Your task to perform on an android device: open a bookmark in the chrome app Image 0: 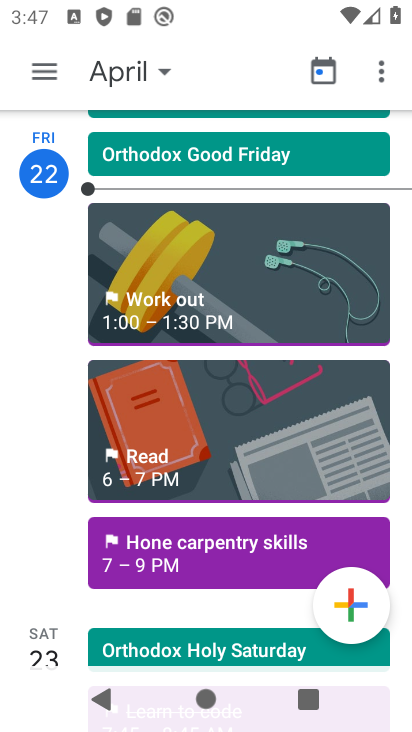
Step 0: press home button
Your task to perform on an android device: open a bookmark in the chrome app Image 1: 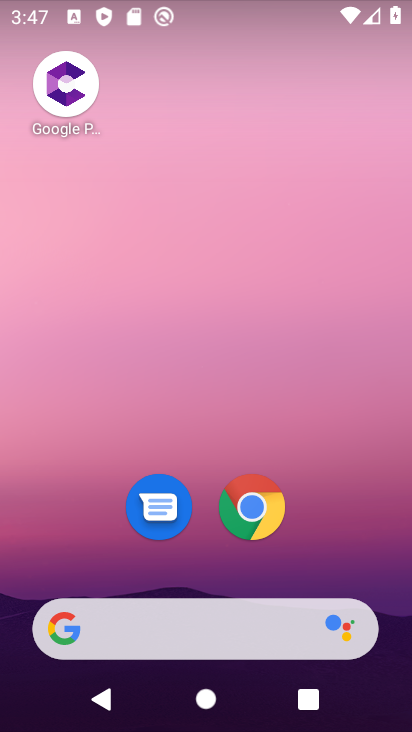
Step 1: drag from (339, 558) to (386, 29)
Your task to perform on an android device: open a bookmark in the chrome app Image 2: 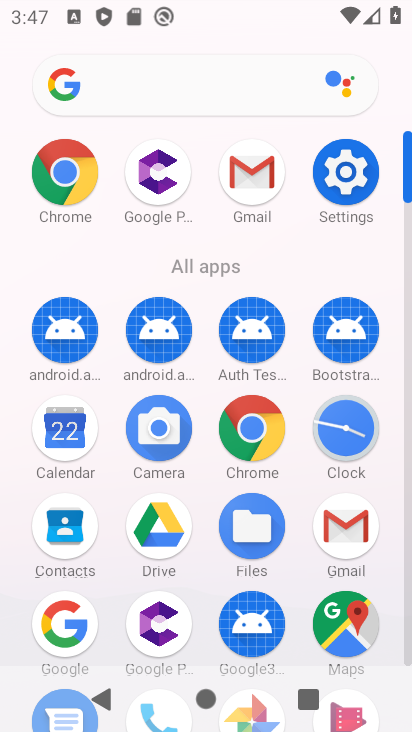
Step 2: click (75, 162)
Your task to perform on an android device: open a bookmark in the chrome app Image 3: 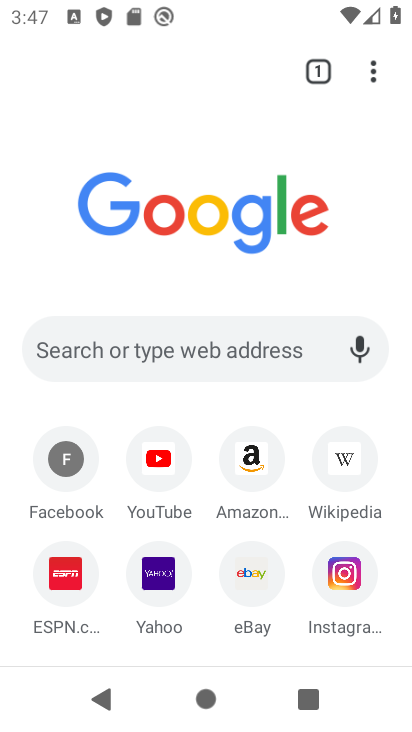
Step 3: task complete